Your task to perform on an android device: open chrome and create a bookmark for the current page Image 0: 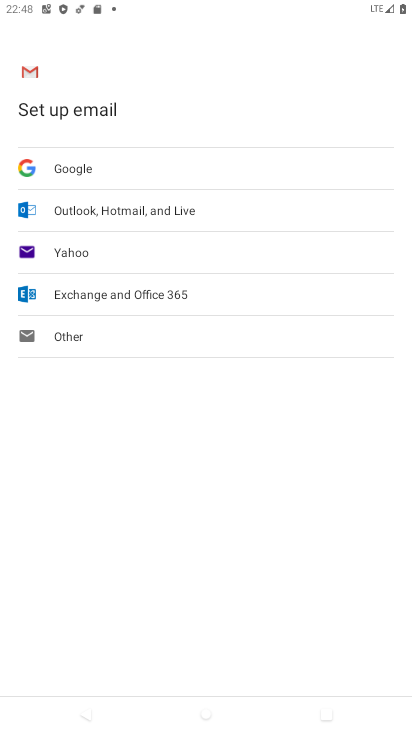
Step 0: press home button
Your task to perform on an android device: open chrome and create a bookmark for the current page Image 1: 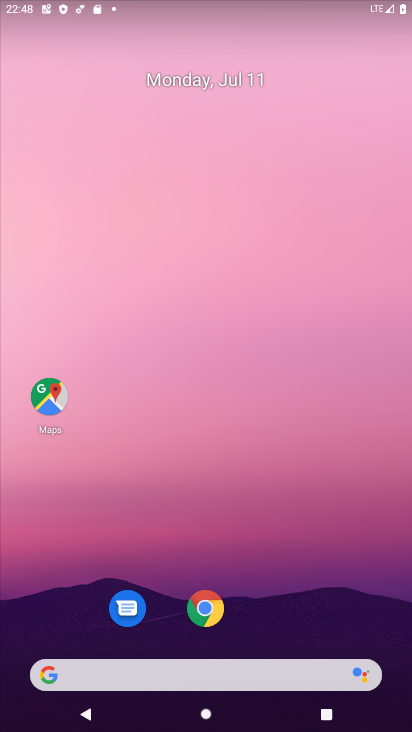
Step 1: click (215, 609)
Your task to perform on an android device: open chrome and create a bookmark for the current page Image 2: 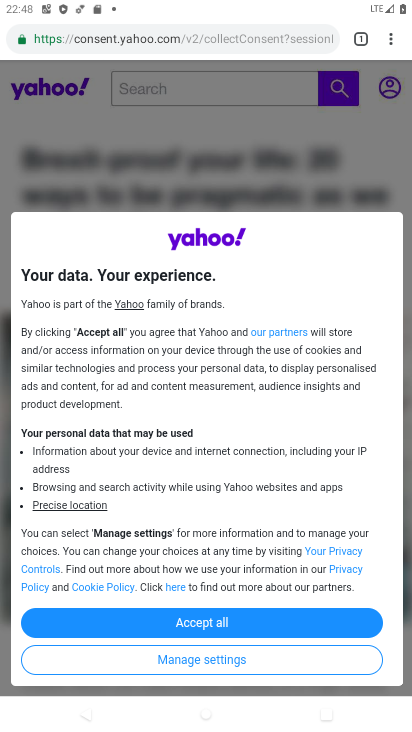
Step 2: click (388, 37)
Your task to perform on an android device: open chrome and create a bookmark for the current page Image 3: 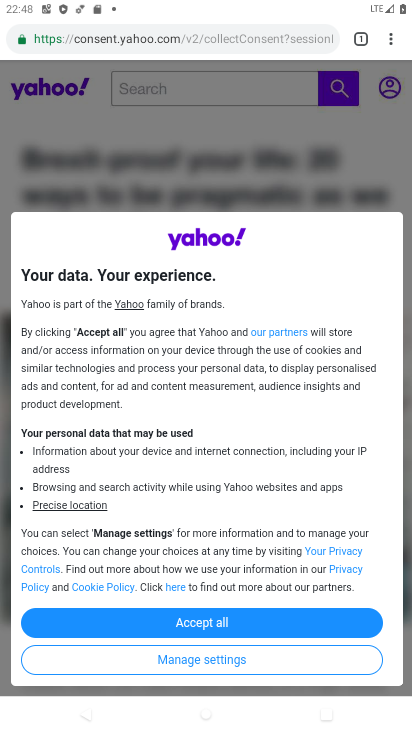
Step 3: click (391, 36)
Your task to perform on an android device: open chrome and create a bookmark for the current page Image 4: 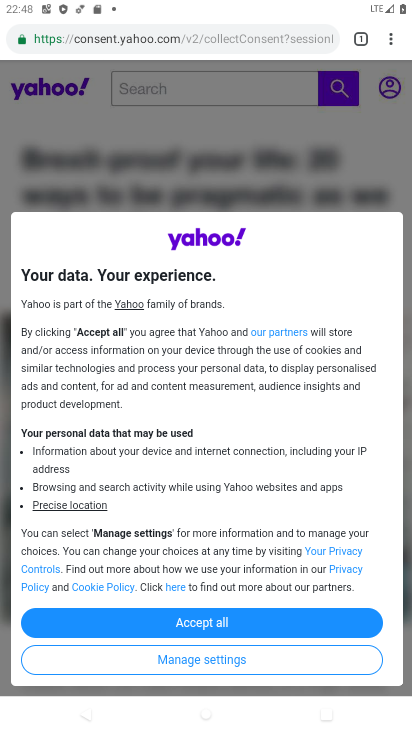
Step 4: click (387, 32)
Your task to perform on an android device: open chrome and create a bookmark for the current page Image 5: 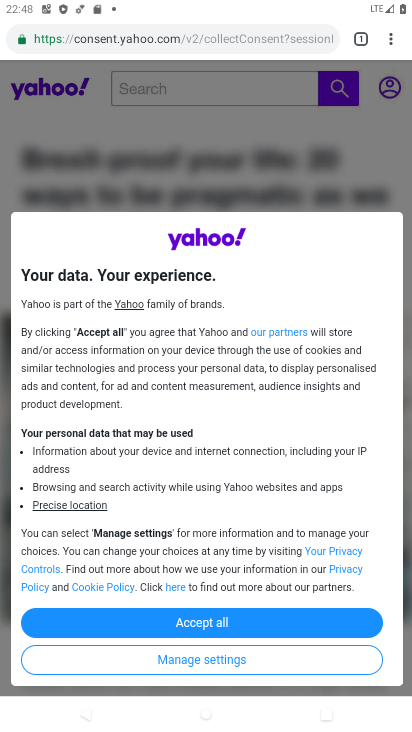
Step 5: click (396, 32)
Your task to perform on an android device: open chrome and create a bookmark for the current page Image 6: 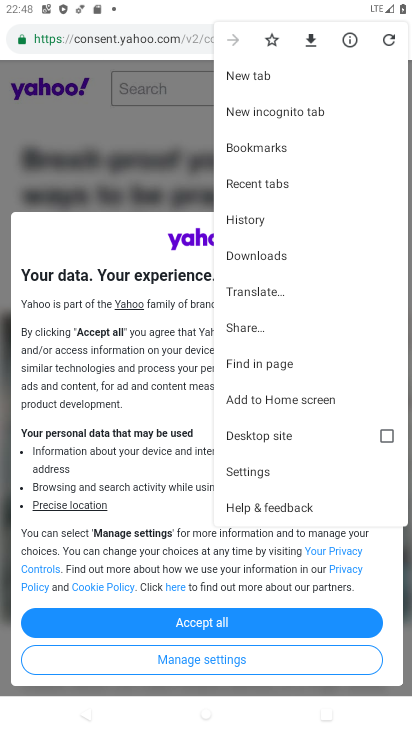
Step 6: click (247, 147)
Your task to perform on an android device: open chrome and create a bookmark for the current page Image 7: 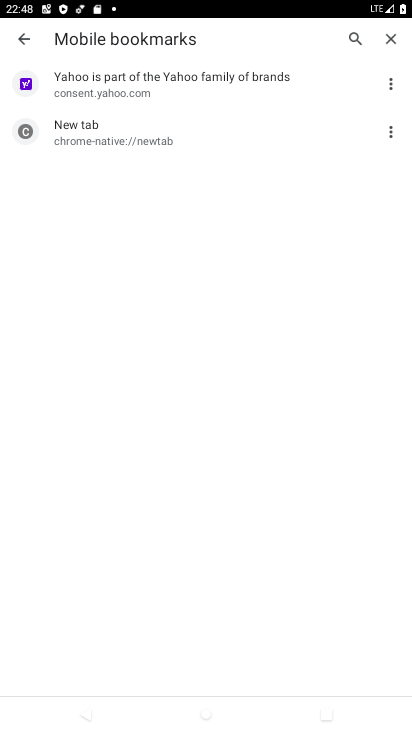
Step 7: click (22, 43)
Your task to perform on an android device: open chrome and create a bookmark for the current page Image 8: 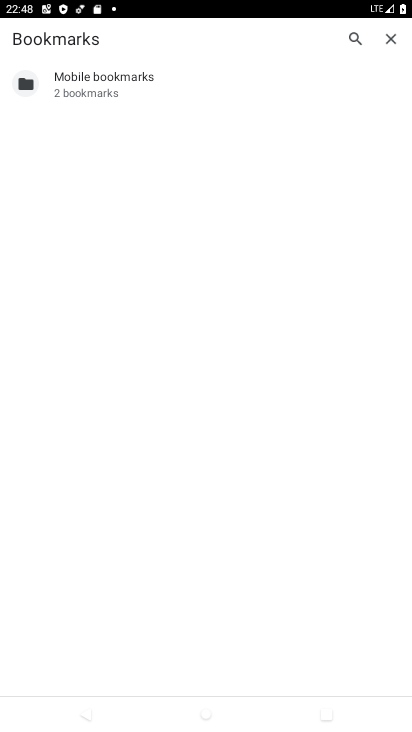
Step 8: click (171, 76)
Your task to perform on an android device: open chrome and create a bookmark for the current page Image 9: 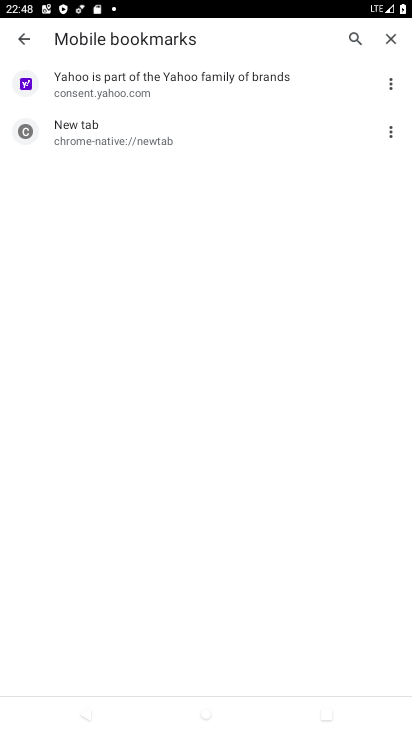
Step 9: task complete